Your task to perform on an android device: Open Youtube and go to "Your channel" Image 0: 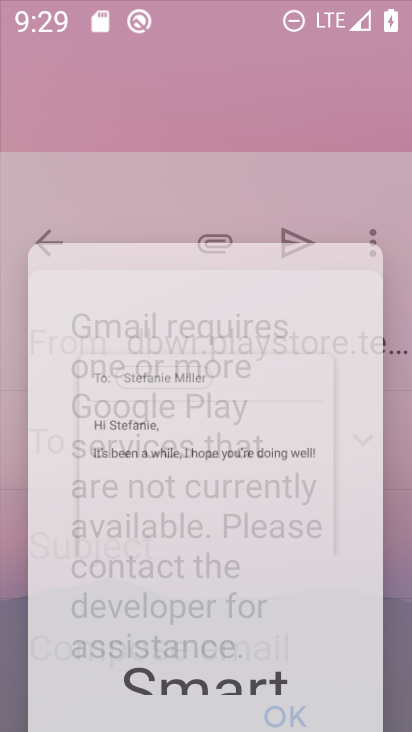
Step 0: press home button
Your task to perform on an android device: Open Youtube and go to "Your channel" Image 1: 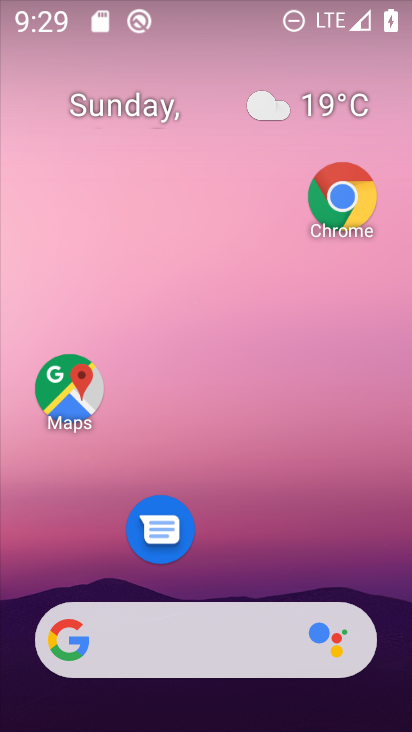
Step 1: press home button
Your task to perform on an android device: Open Youtube and go to "Your channel" Image 2: 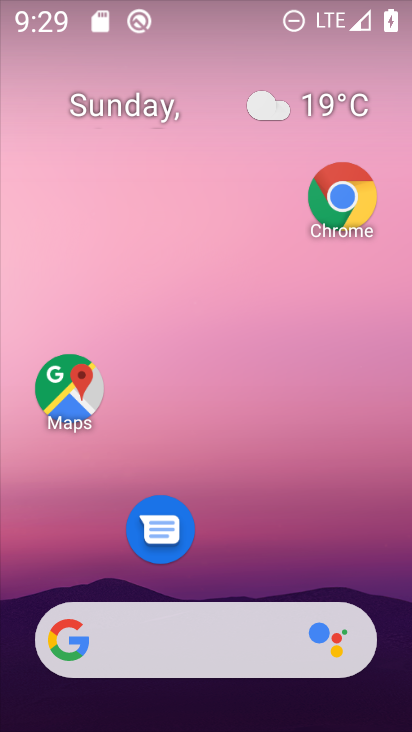
Step 2: drag from (239, 573) to (251, 21)
Your task to perform on an android device: Open Youtube and go to "Your channel" Image 3: 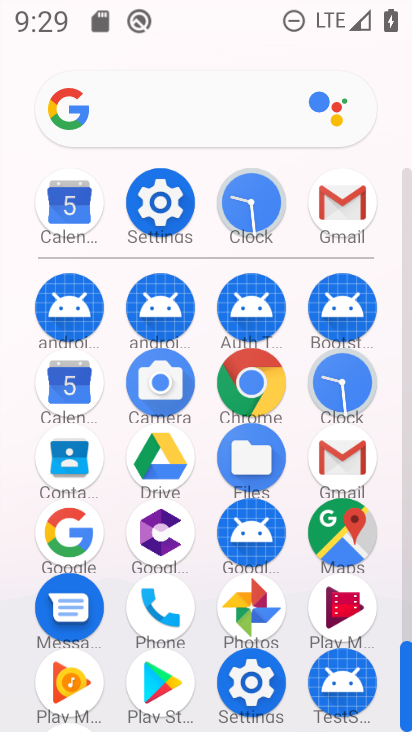
Step 3: drag from (209, 636) to (231, 163)
Your task to perform on an android device: Open Youtube and go to "Your channel" Image 4: 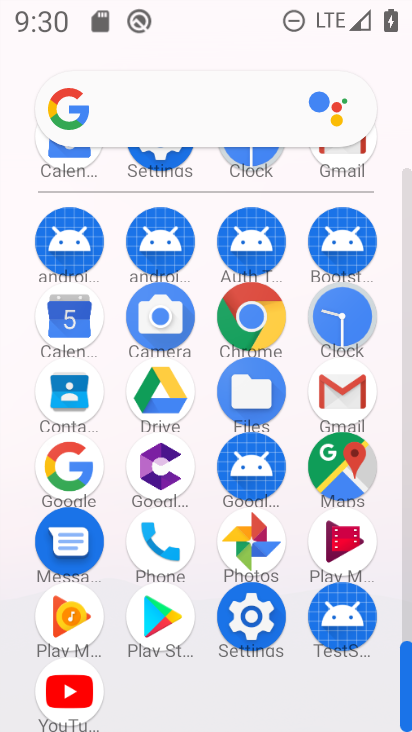
Step 4: click (67, 683)
Your task to perform on an android device: Open Youtube and go to "Your channel" Image 5: 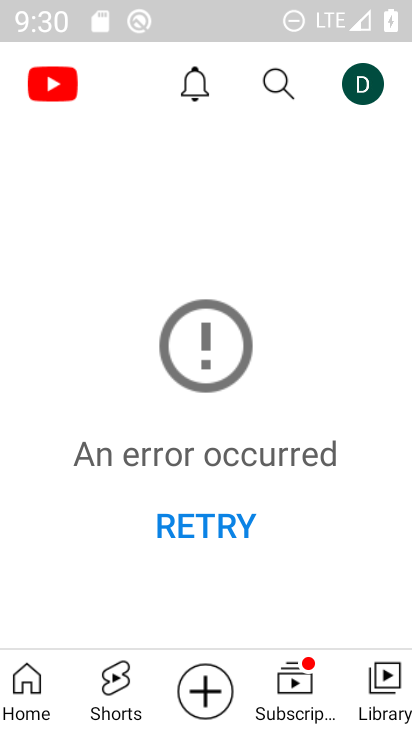
Step 5: click (362, 76)
Your task to perform on an android device: Open Youtube and go to "Your channel" Image 6: 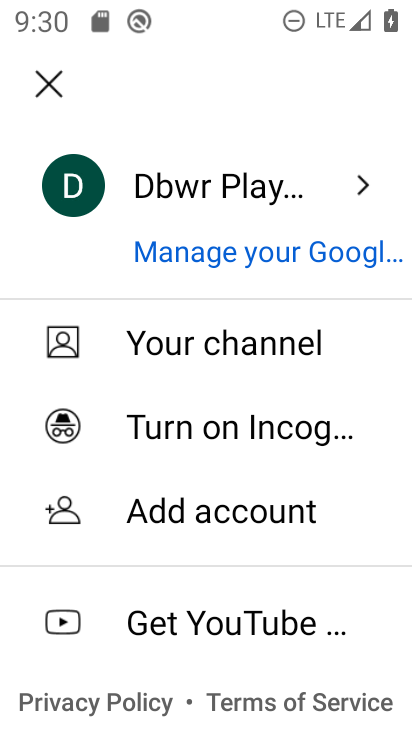
Step 6: click (102, 334)
Your task to perform on an android device: Open Youtube and go to "Your channel" Image 7: 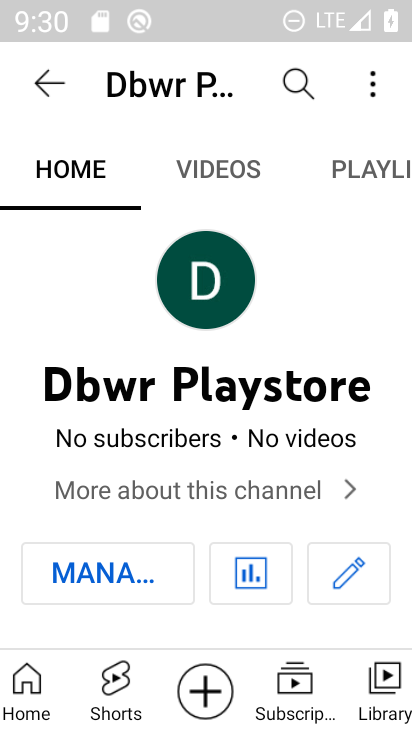
Step 7: task complete